Your task to perform on an android device: Add razer nari to the cart on newegg, then select checkout. Image 0: 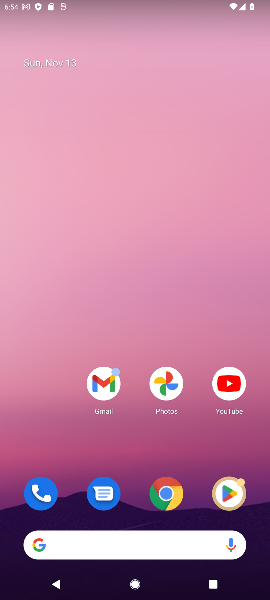
Step 0: click (96, 551)
Your task to perform on an android device: Add razer nari to the cart on newegg, then select checkout. Image 1: 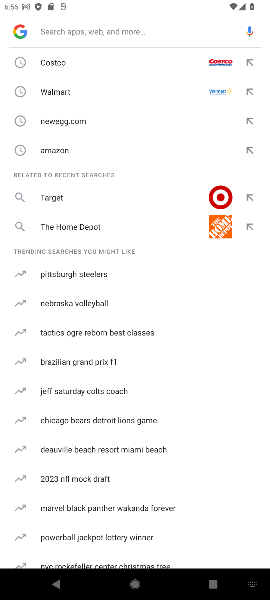
Step 1: type "newegg"
Your task to perform on an android device: Add razer nari to the cart on newegg, then select checkout. Image 2: 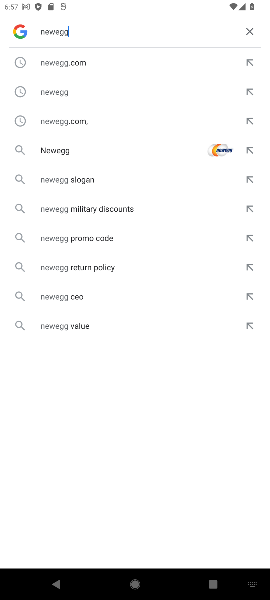
Step 2: click (176, 149)
Your task to perform on an android device: Add razer nari to the cart on newegg, then select checkout. Image 3: 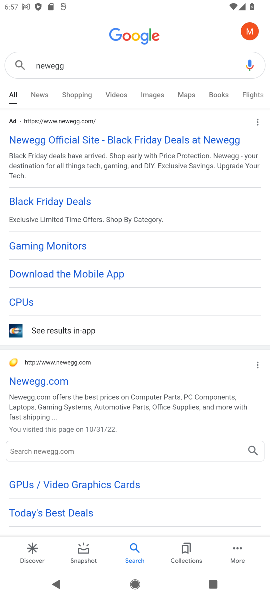
Step 3: click (36, 382)
Your task to perform on an android device: Add razer nari to the cart on newegg, then select checkout. Image 4: 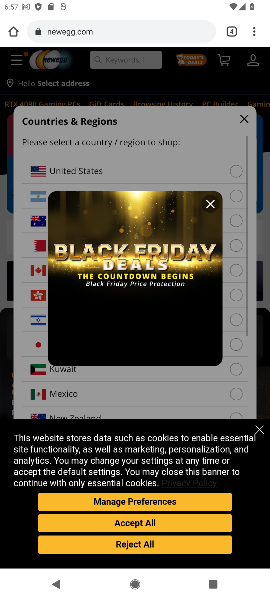
Step 4: click (211, 207)
Your task to perform on an android device: Add razer nari to the cart on newegg, then select checkout. Image 5: 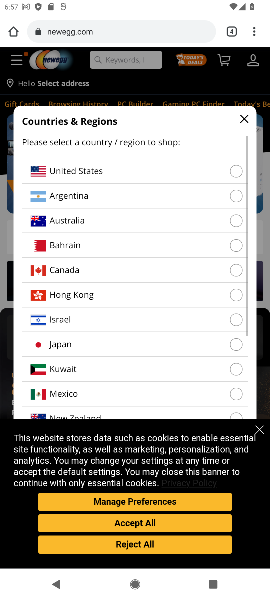
Step 5: click (235, 177)
Your task to perform on an android device: Add razer nari to the cart on newegg, then select checkout. Image 6: 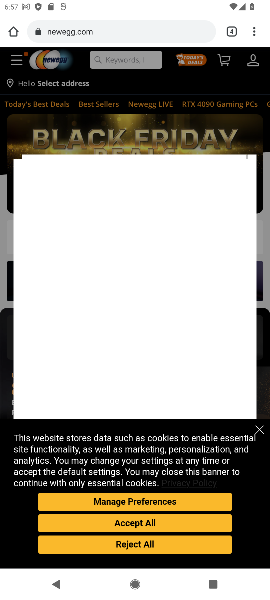
Step 6: drag from (179, 299) to (170, 342)
Your task to perform on an android device: Add razer nari to the cart on newegg, then select checkout. Image 7: 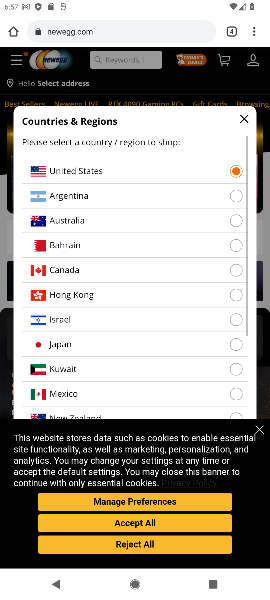
Step 7: drag from (159, 268) to (266, 51)
Your task to perform on an android device: Add razer nari to the cart on newegg, then select checkout. Image 8: 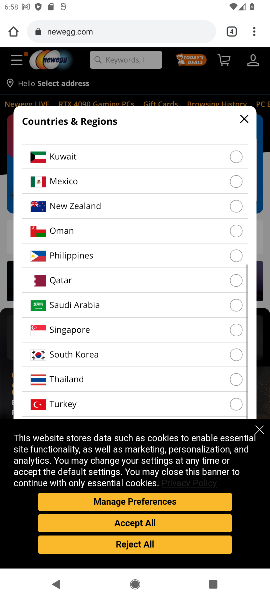
Step 8: click (259, 429)
Your task to perform on an android device: Add razer nari to the cart on newegg, then select checkout. Image 9: 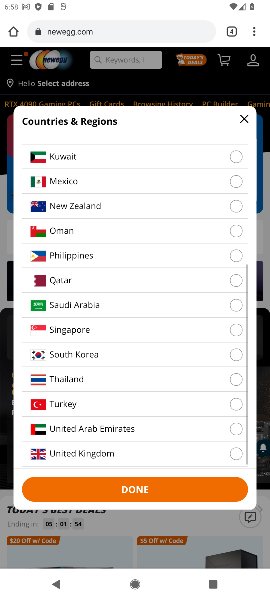
Step 9: click (133, 489)
Your task to perform on an android device: Add razer nari to the cart on newegg, then select checkout. Image 10: 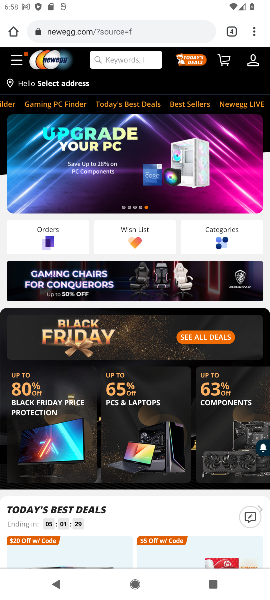
Step 10: click (108, 64)
Your task to perform on an android device: Add razer nari to the cart on newegg, then select checkout. Image 11: 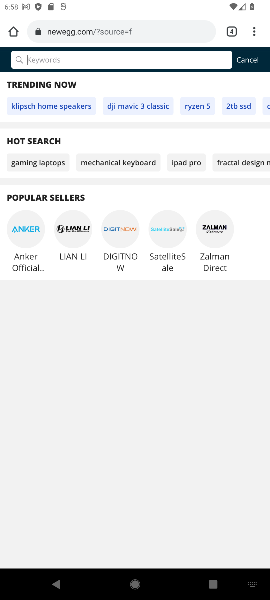
Step 11: type "razer nari "
Your task to perform on an android device: Add razer nari to the cart on newegg, then select checkout. Image 12: 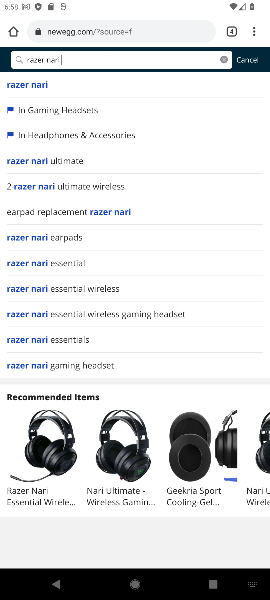
Step 12: click (26, 85)
Your task to perform on an android device: Add razer nari to the cart on newegg, then select checkout. Image 13: 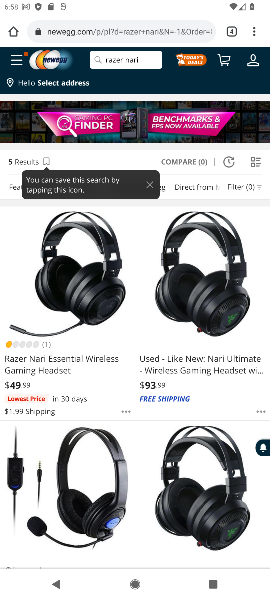
Step 13: click (42, 360)
Your task to perform on an android device: Add razer nari to the cart on newegg, then select checkout. Image 14: 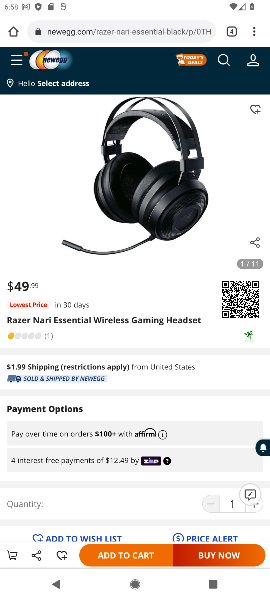
Step 14: click (126, 552)
Your task to perform on an android device: Add razer nari to the cart on newegg, then select checkout. Image 15: 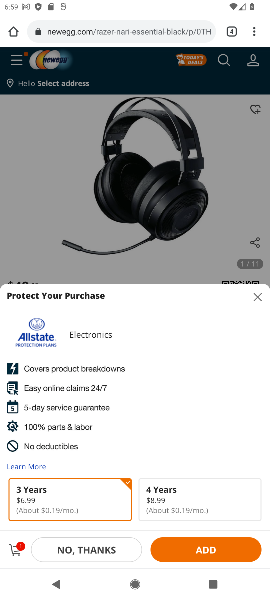
Step 15: click (98, 549)
Your task to perform on an android device: Add razer nari to the cart on newegg, then select checkout. Image 16: 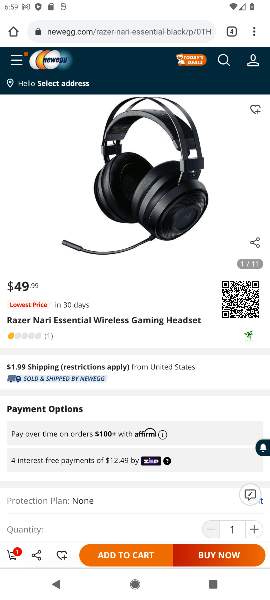
Step 16: task complete